Your task to perform on an android device: Go to ESPN.com Image 0: 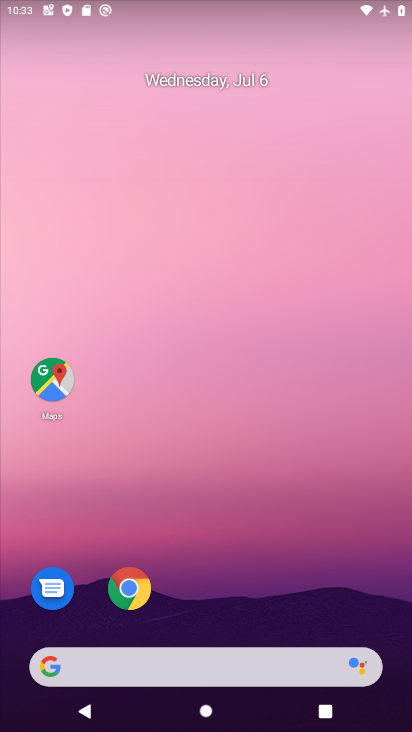
Step 0: drag from (229, 559) to (237, 242)
Your task to perform on an android device: Go to ESPN.com Image 1: 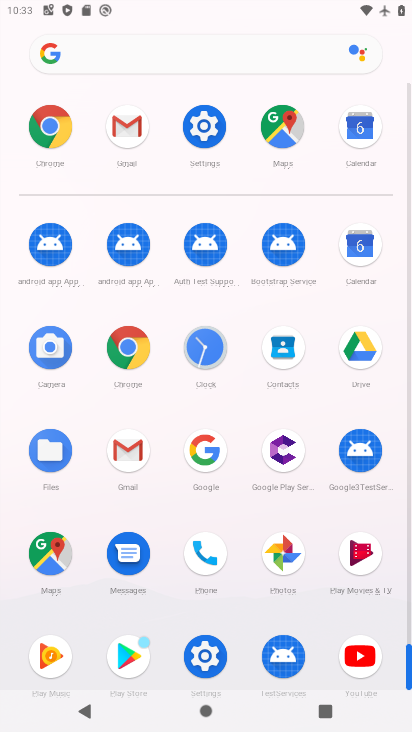
Step 1: click (44, 129)
Your task to perform on an android device: Go to ESPN.com Image 2: 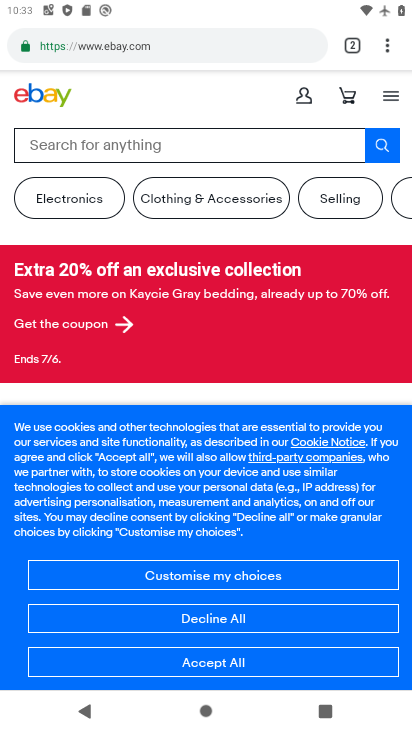
Step 2: click (382, 47)
Your task to perform on an android device: Go to ESPN.com Image 3: 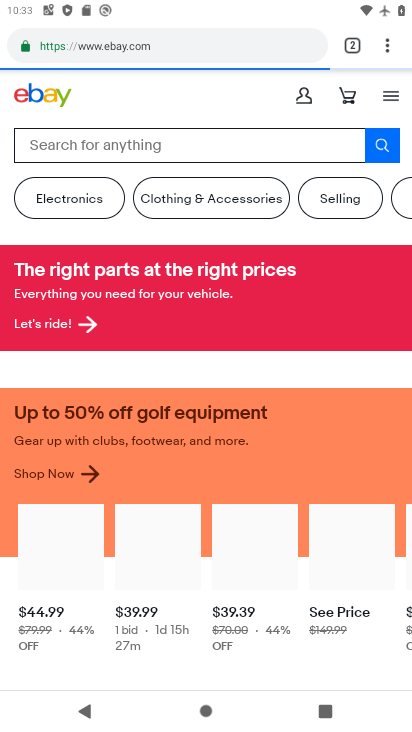
Step 3: click (382, 39)
Your task to perform on an android device: Go to ESPN.com Image 4: 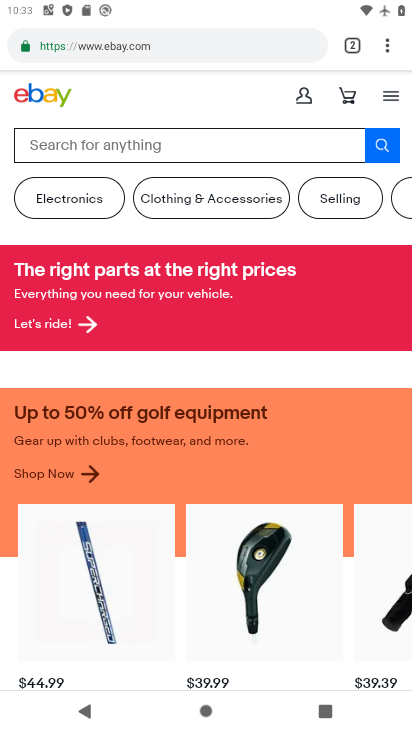
Step 4: click (377, 41)
Your task to perform on an android device: Go to ESPN.com Image 5: 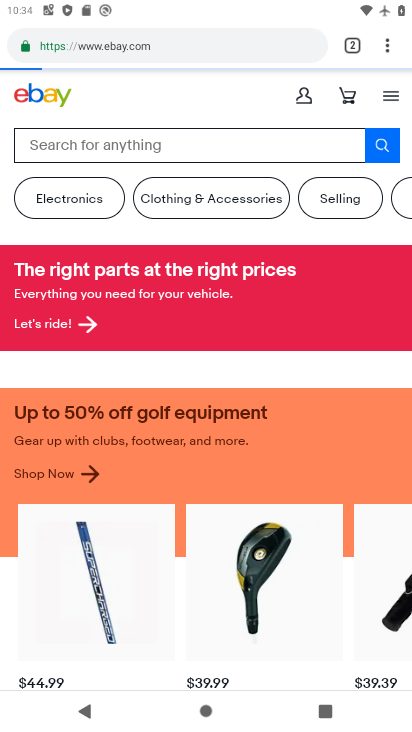
Step 5: click (386, 43)
Your task to perform on an android device: Go to ESPN.com Image 6: 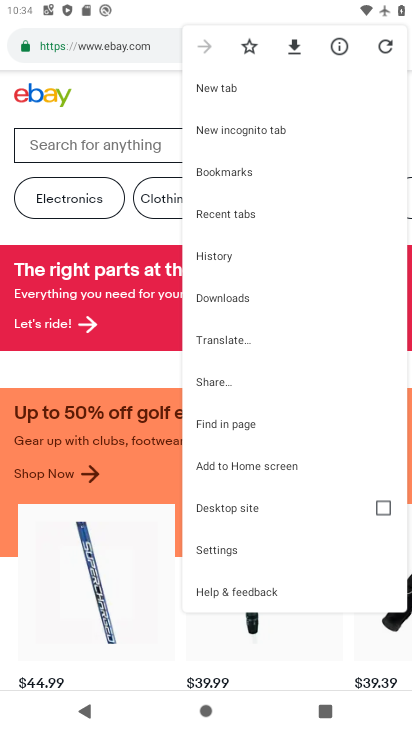
Step 6: click (255, 90)
Your task to perform on an android device: Go to ESPN.com Image 7: 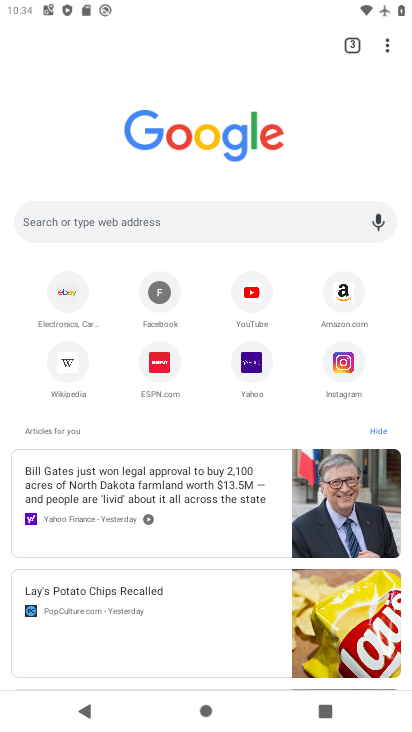
Step 7: click (162, 365)
Your task to perform on an android device: Go to ESPN.com Image 8: 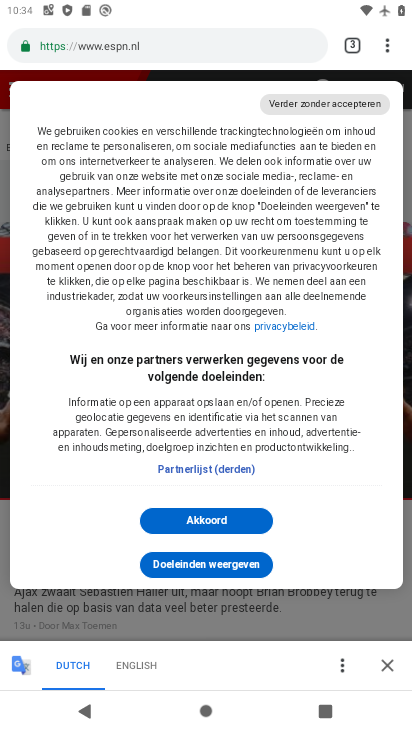
Step 8: task complete